Your task to perform on an android device: toggle javascript in the chrome app Image 0: 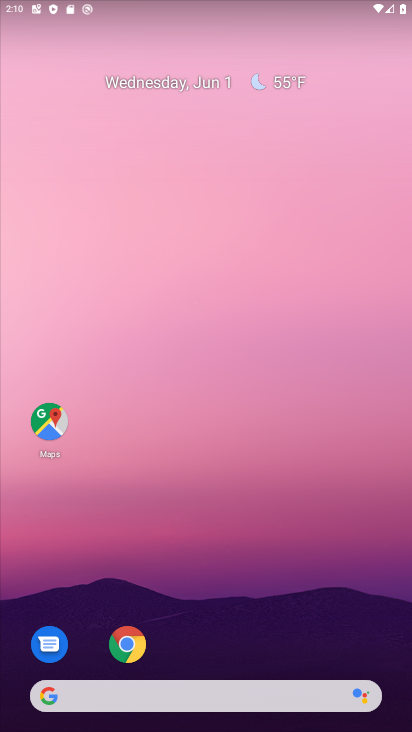
Step 0: click (125, 645)
Your task to perform on an android device: toggle javascript in the chrome app Image 1: 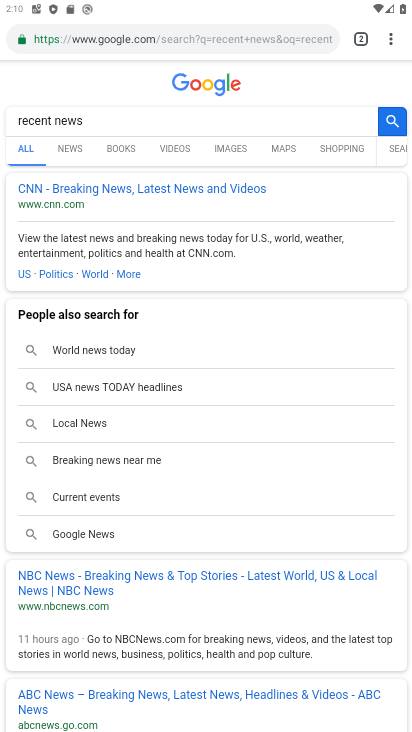
Step 1: click (392, 39)
Your task to perform on an android device: toggle javascript in the chrome app Image 2: 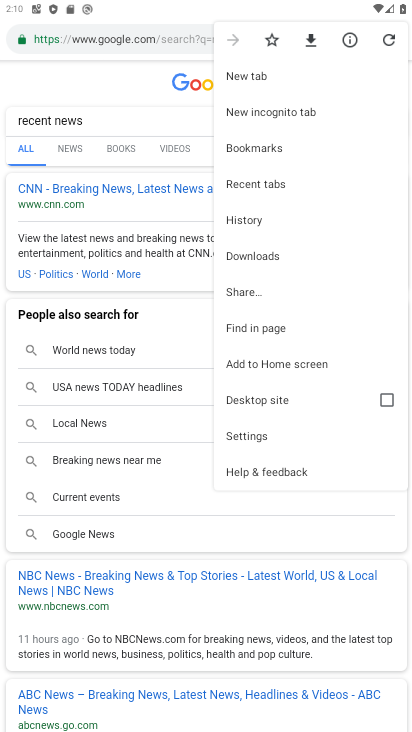
Step 2: click (252, 430)
Your task to perform on an android device: toggle javascript in the chrome app Image 3: 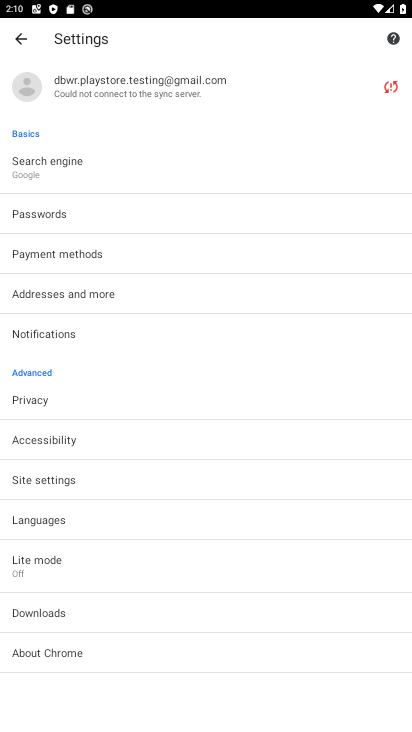
Step 3: click (55, 475)
Your task to perform on an android device: toggle javascript in the chrome app Image 4: 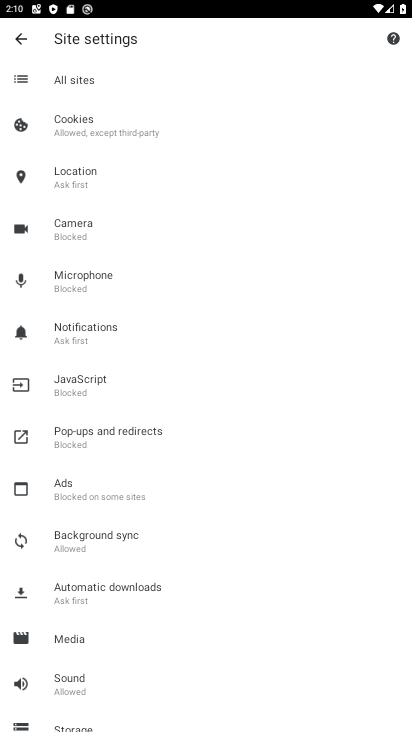
Step 4: click (103, 381)
Your task to perform on an android device: toggle javascript in the chrome app Image 5: 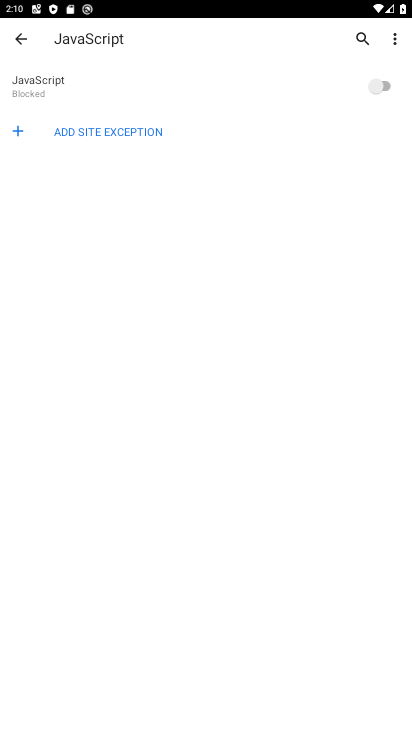
Step 5: click (390, 80)
Your task to perform on an android device: toggle javascript in the chrome app Image 6: 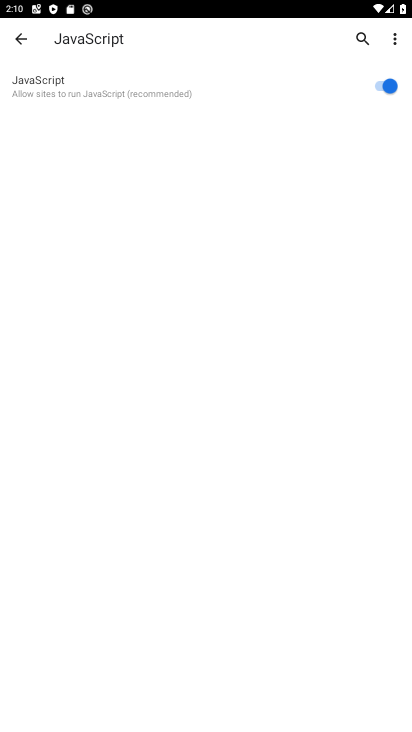
Step 6: task complete